Your task to perform on an android device: turn off airplane mode Image 0: 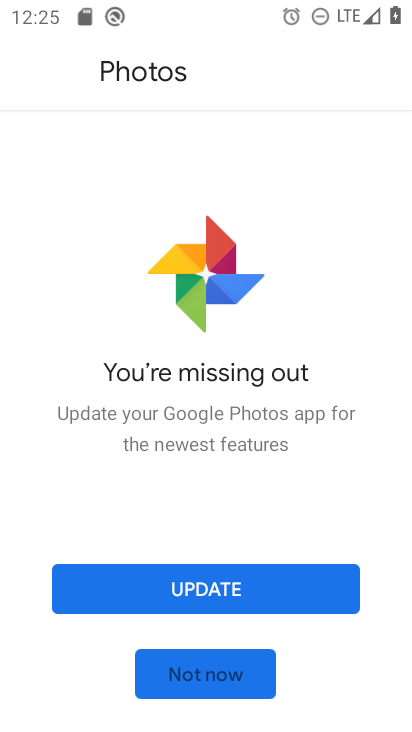
Step 0: press home button
Your task to perform on an android device: turn off airplane mode Image 1: 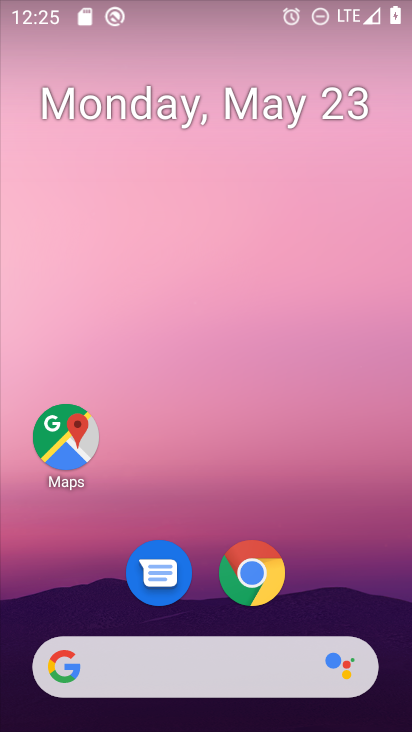
Step 1: drag from (344, 602) to (328, 0)
Your task to perform on an android device: turn off airplane mode Image 2: 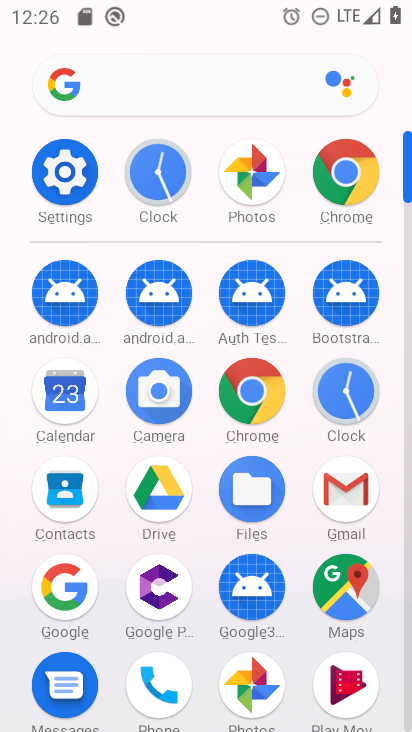
Step 2: click (59, 172)
Your task to perform on an android device: turn off airplane mode Image 3: 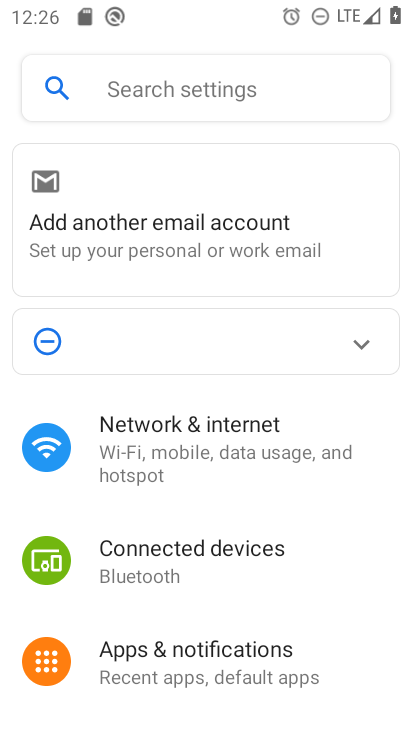
Step 3: click (200, 451)
Your task to perform on an android device: turn off airplane mode Image 4: 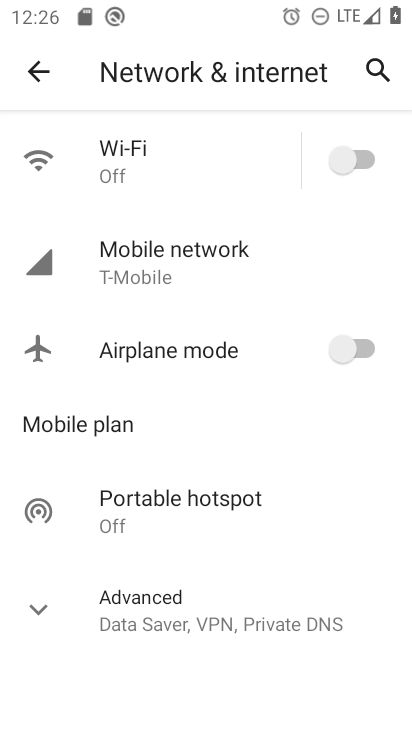
Step 4: task complete